Your task to perform on an android device: add a label to a message in the gmail app Image 0: 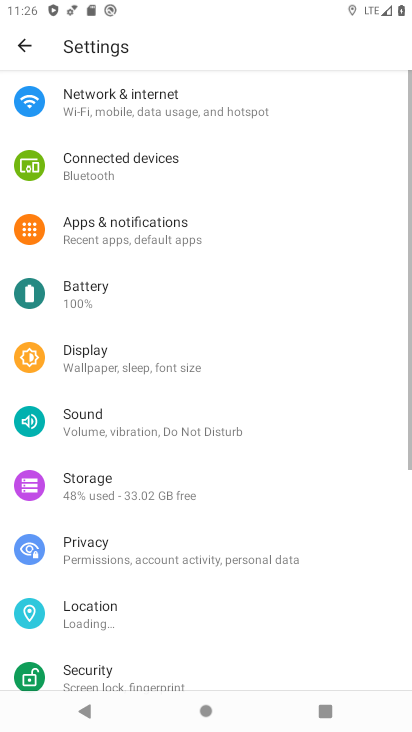
Step 0: press home button
Your task to perform on an android device: add a label to a message in the gmail app Image 1: 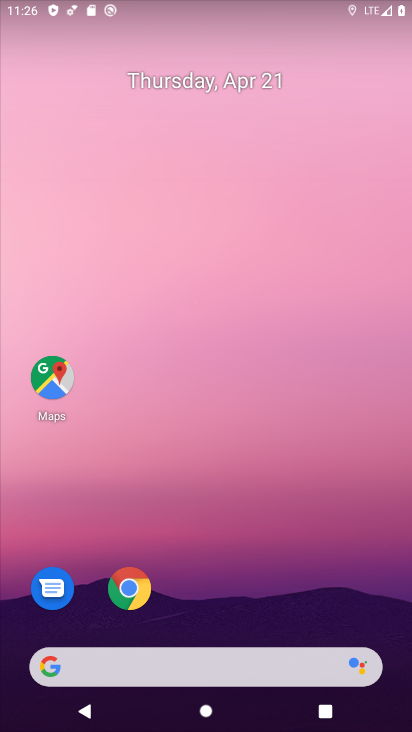
Step 1: drag from (271, 686) to (262, 158)
Your task to perform on an android device: add a label to a message in the gmail app Image 2: 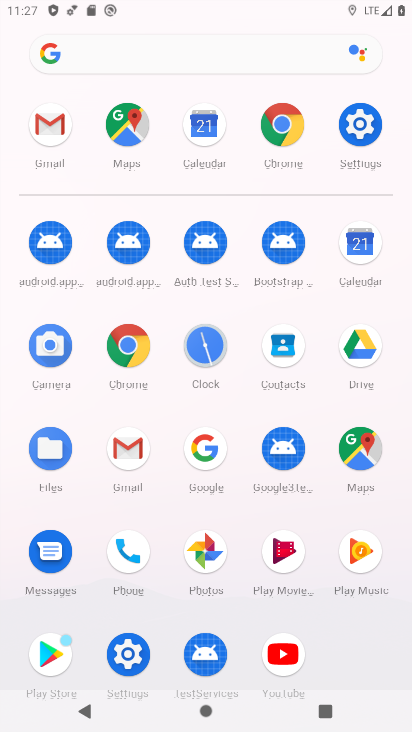
Step 2: click (40, 133)
Your task to perform on an android device: add a label to a message in the gmail app Image 3: 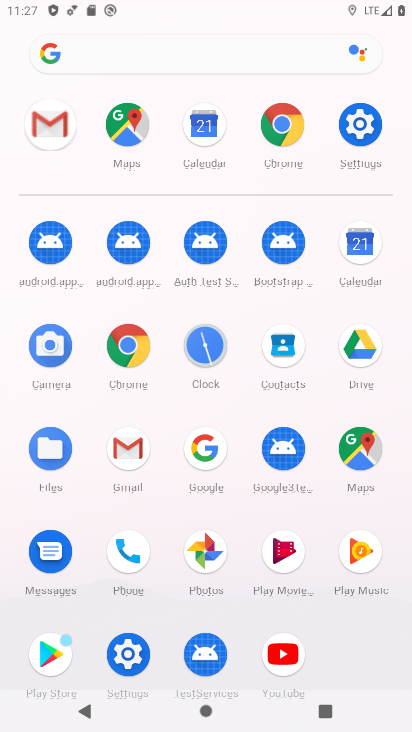
Step 3: click (48, 129)
Your task to perform on an android device: add a label to a message in the gmail app Image 4: 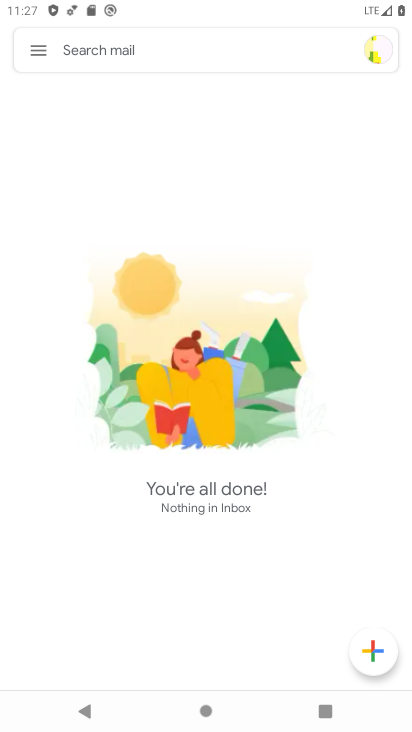
Step 4: click (34, 47)
Your task to perform on an android device: add a label to a message in the gmail app Image 5: 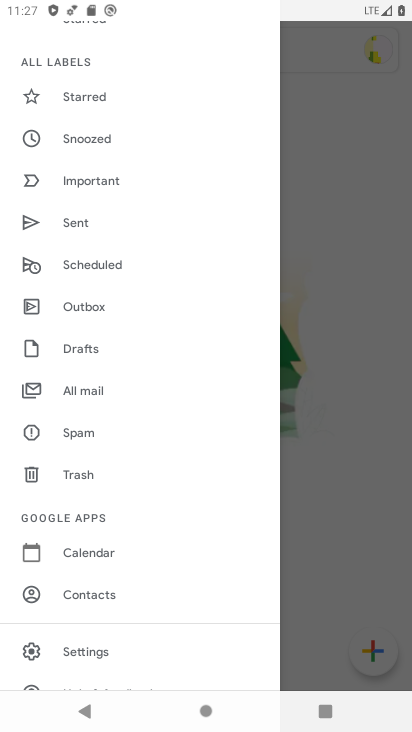
Step 5: click (68, 649)
Your task to perform on an android device: add a label to a message in the gmail app Image 6: 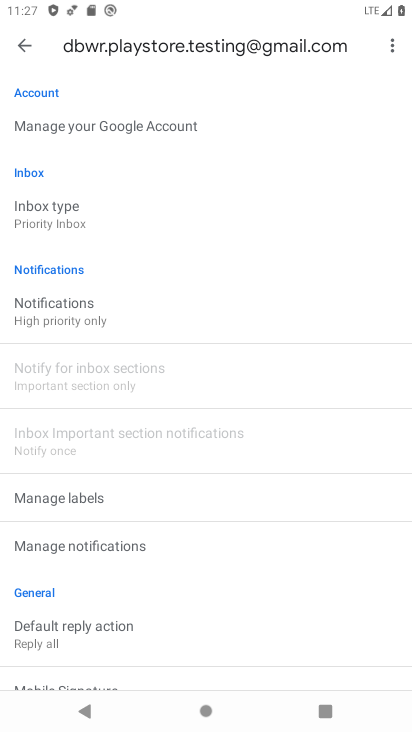
Step 6: click (75, 501)
Your task to perform on an android device: add a label to a message in the gmail app Image 7: 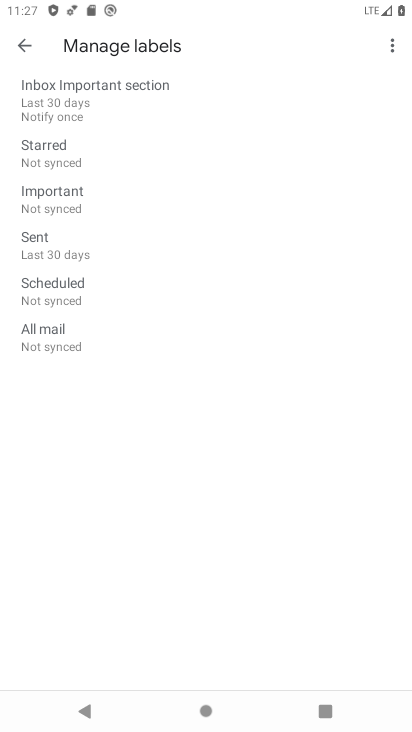
Step 7: click (147, 221)
Your task to perform on an android device: add a label to a message in the gmail app Image 8: 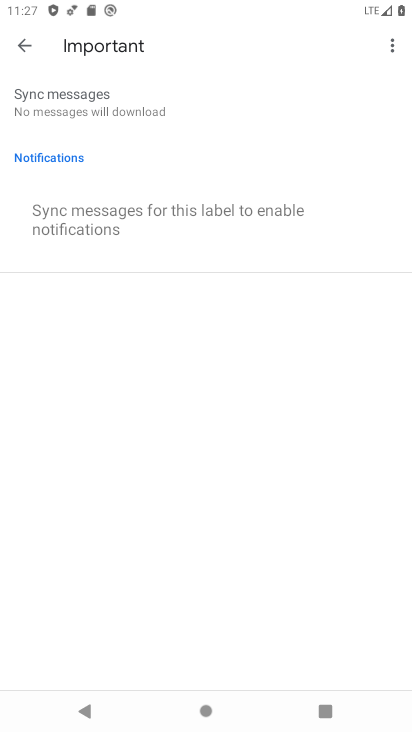
Step 8: task complete